Your task to perform on an android device: Is it going to rain today? Image 0: 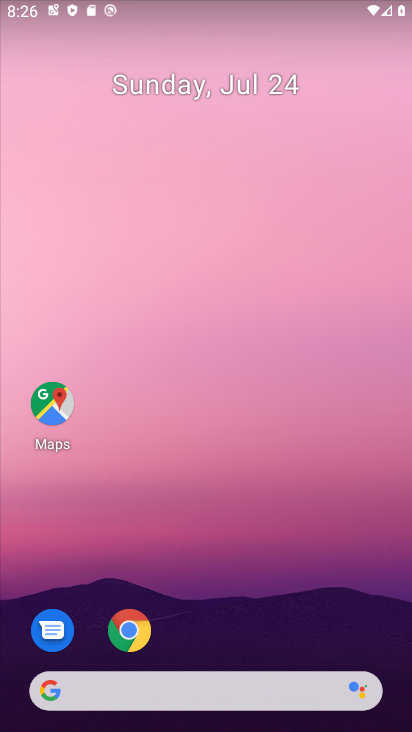
Step 0: drag from (172, 538) to (160, 38)
Your task to perform on an android device: Is it going to rain today? Image 1: 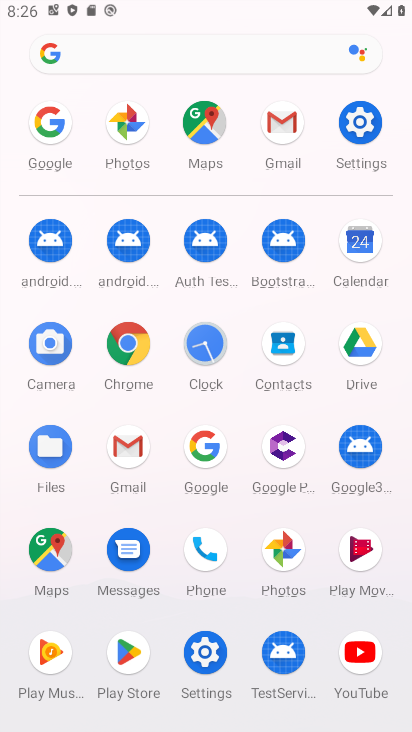
Step 1: click (40, 133)
Your task to perform on an android device: Is it going to rain today? Image 2: 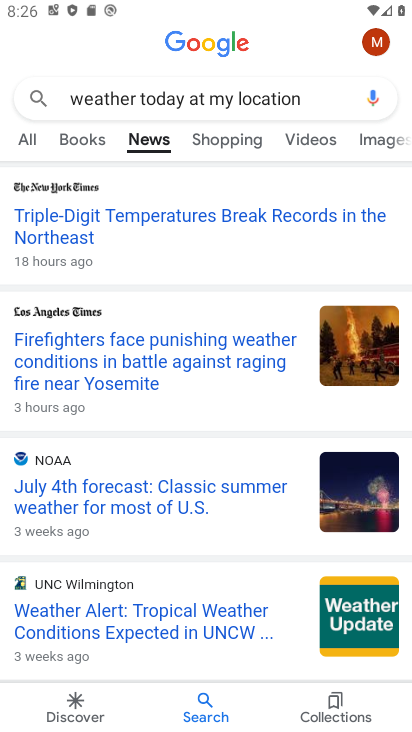
Step 2: click (25, 144)
Your task to perform on an android device: Is it going to rain today? Image 3: 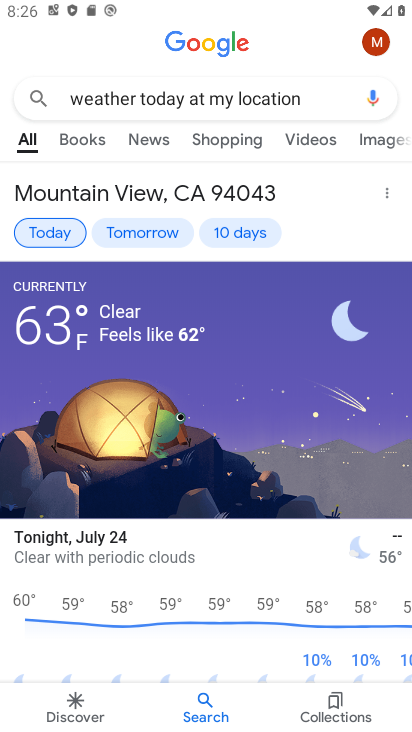
Step 3: task complete